Your task to perform on an android device: Go to Reddit.com Image 0: 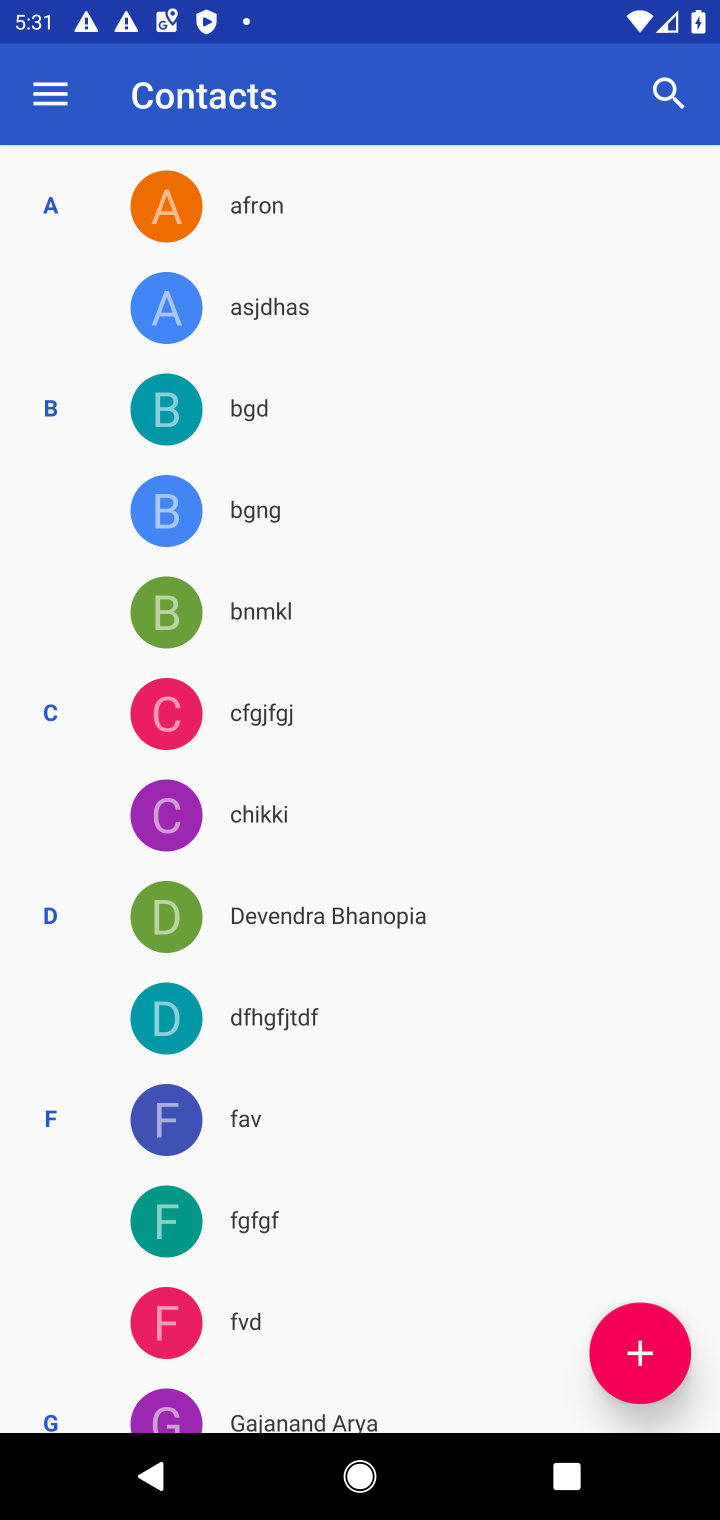
Step 0: press home button
Your task to perform on an android device: Go to Reddit.com Image 1: 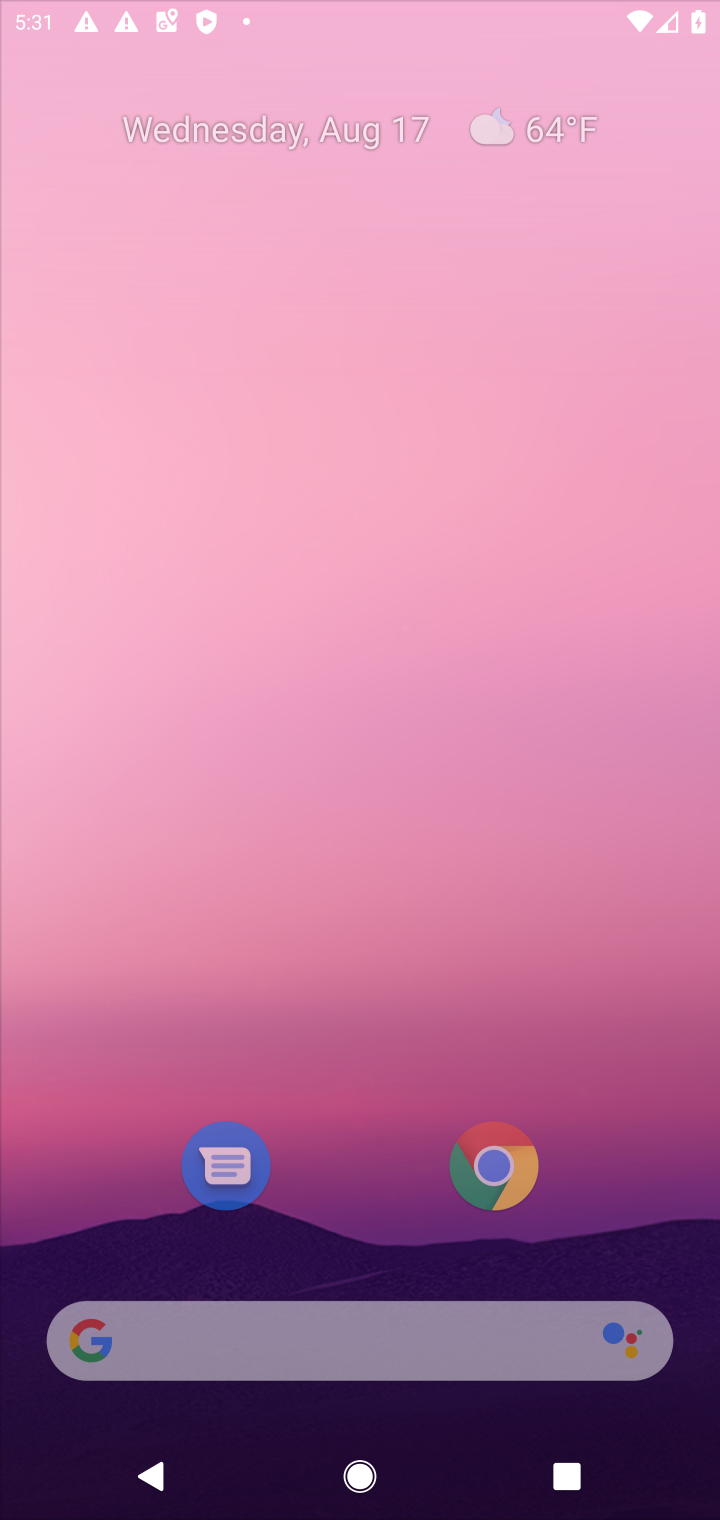
Step 1: press home button
Your task to perform on an android device: Go to Reddit.com Image 2: 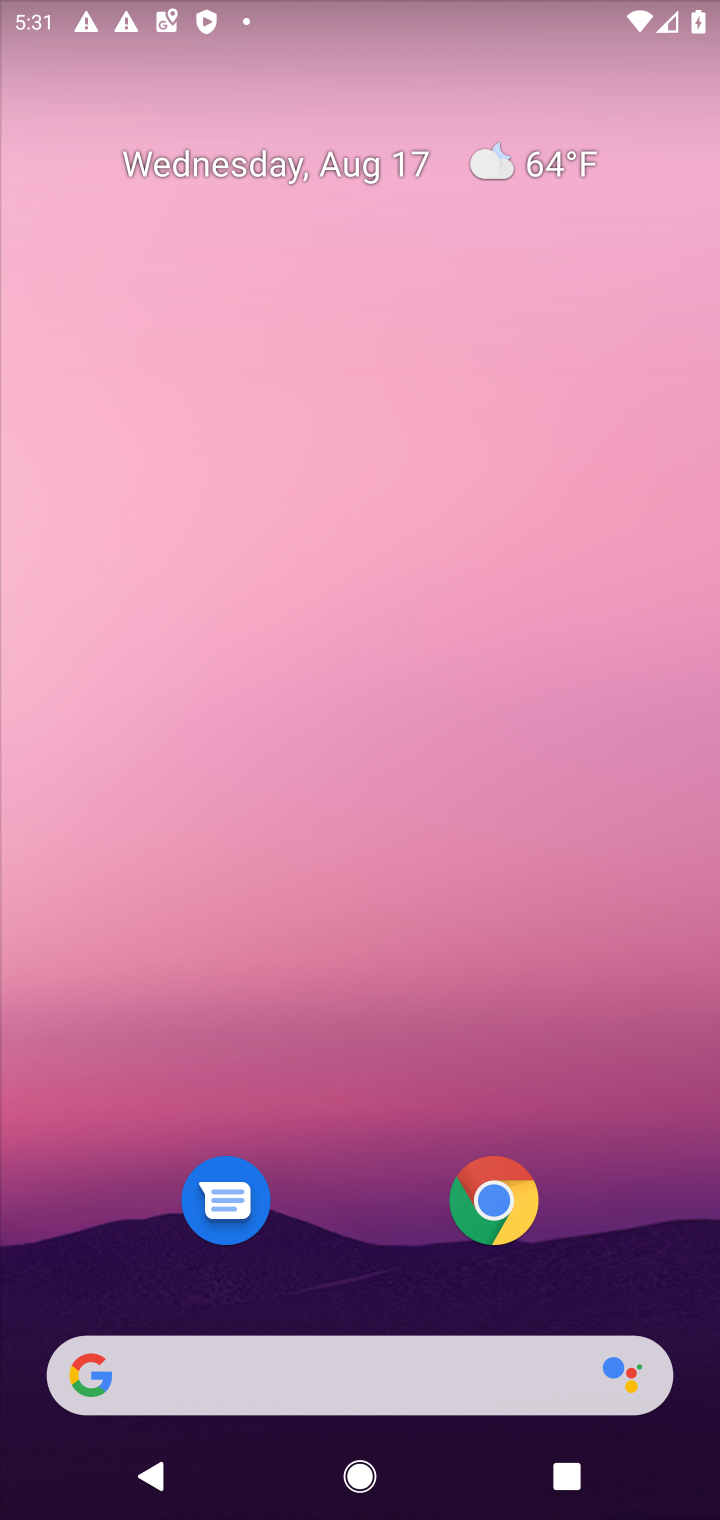
Step 2: drag from (372, 1307) to (393, 270)
Your task to perform on an android device: Go to Reddit.com Image 3: 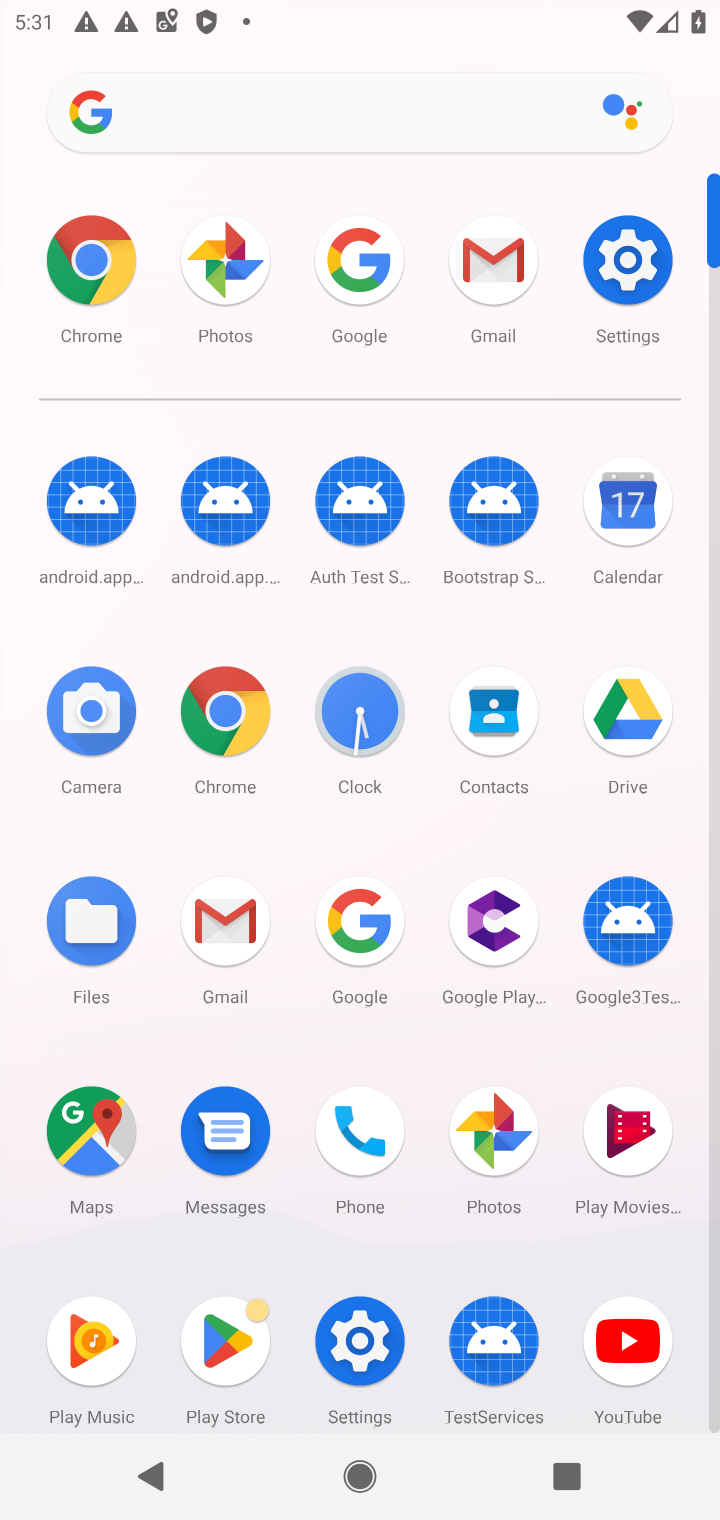
Step 3: click (218, 699)
Your task to perform on an android device: Go to Reddit.com Image 4: 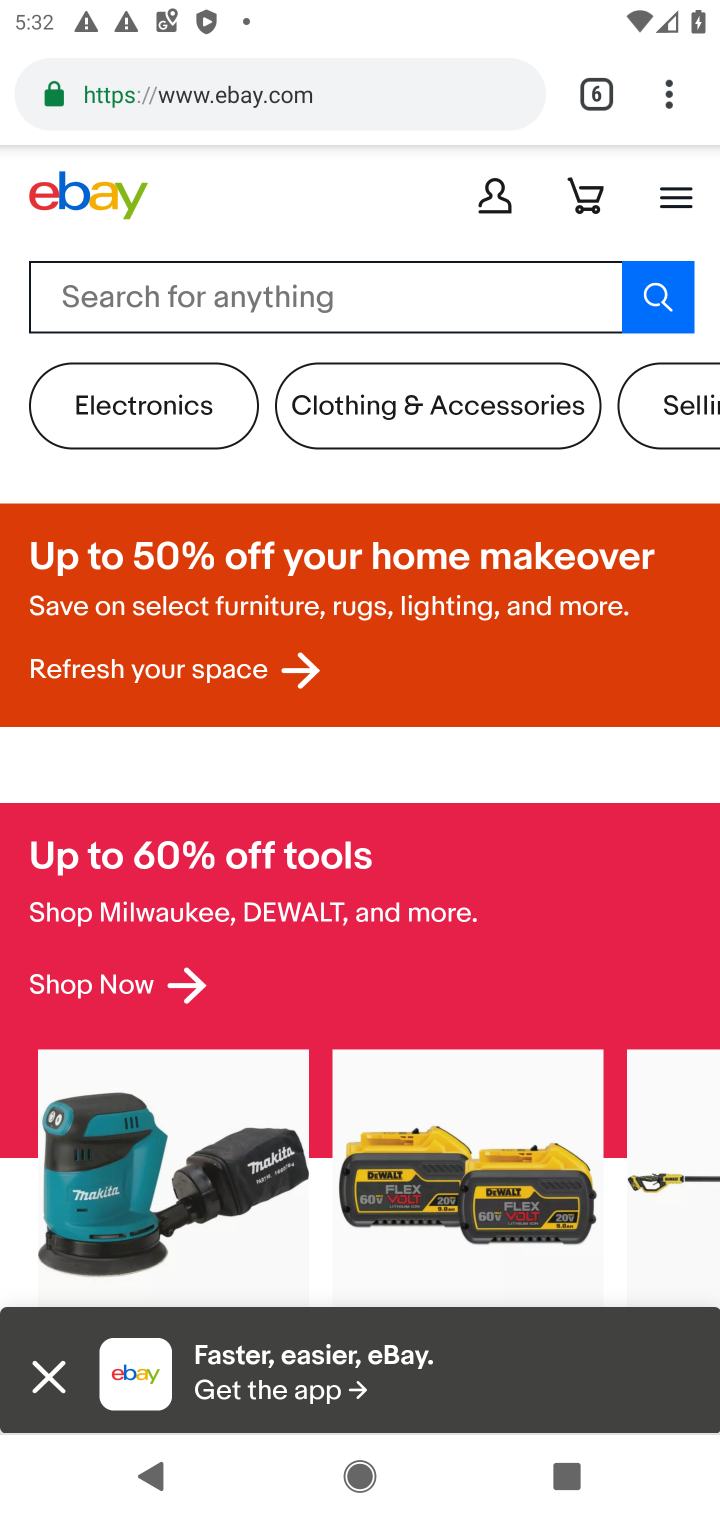
Step 4: click (669, 104)
Your task to perform on an android device: Go to Reddit.com Image 5: 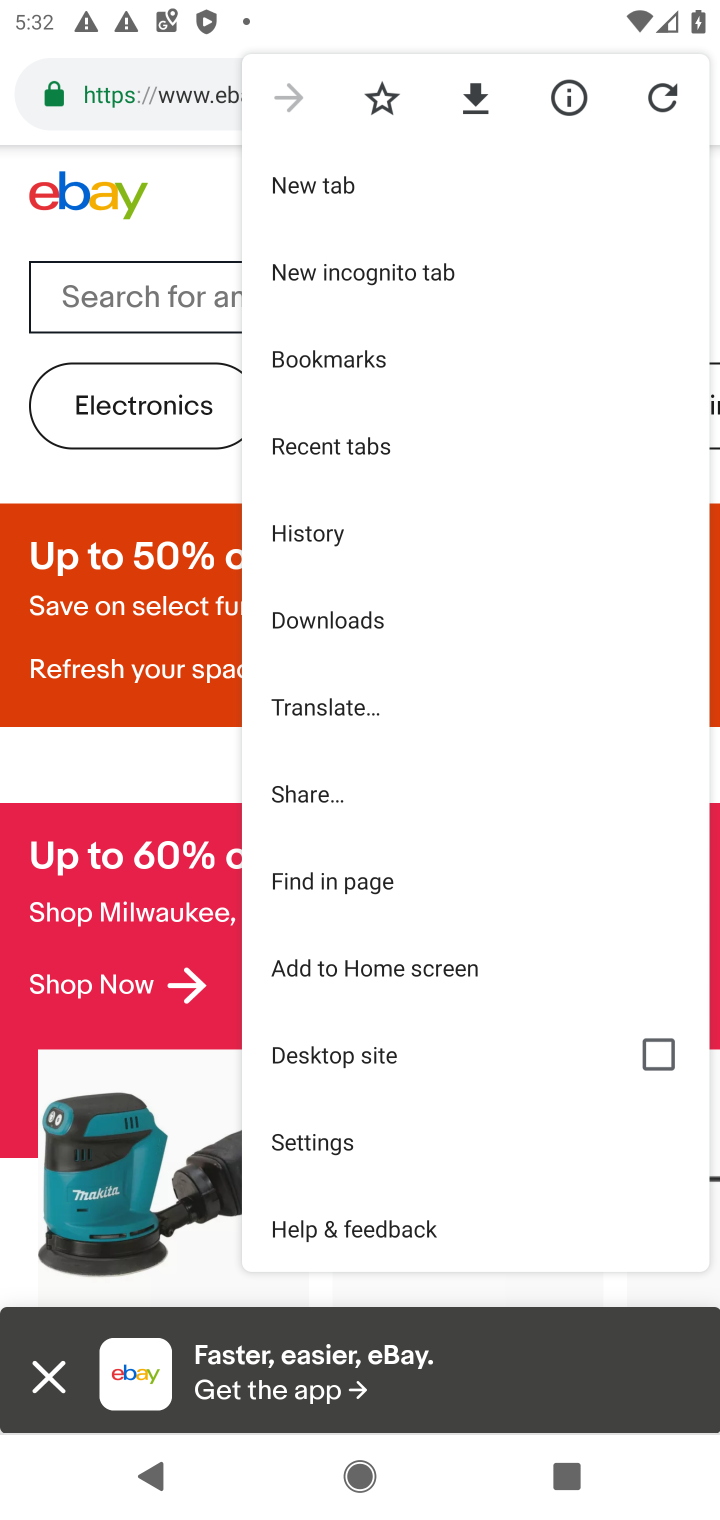
Step 5: click (335, 184)
Your task to perform on an android device: Go to Reddit.com Image 6: 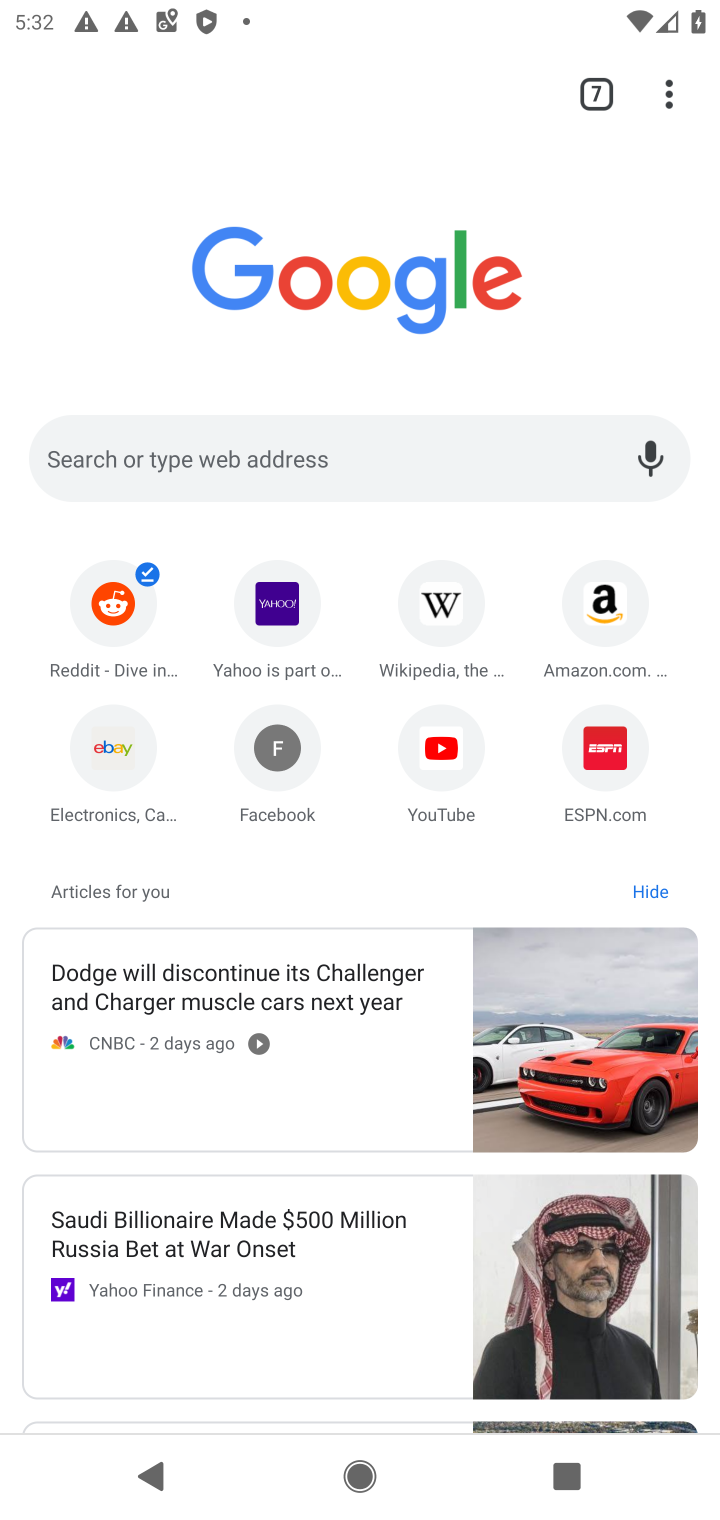
Step 6: click (93, 599)
Your task to perform on an android device: Go to Reddit.com Image 7: 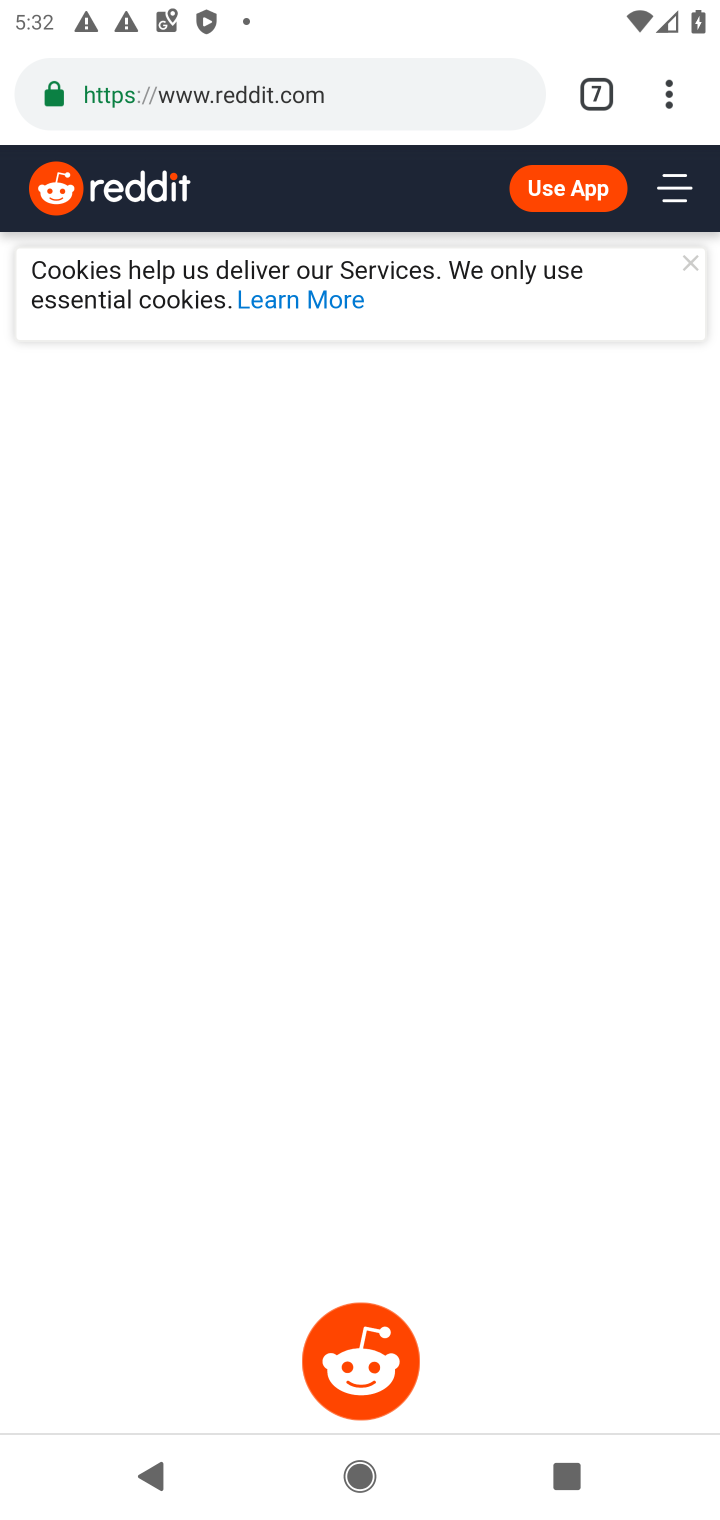
Step 7: task complete